Your task to perform on an android device: Open Google Chrome and click the shortcut for Amazon.com Image 0: 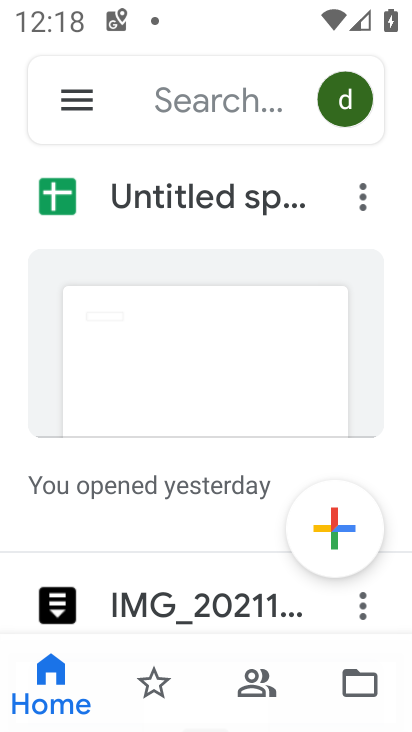
Step 0: press back button
Your task to perform on an android device: Open Google Chrome and click the shortcut for Amazon.com Image 1: 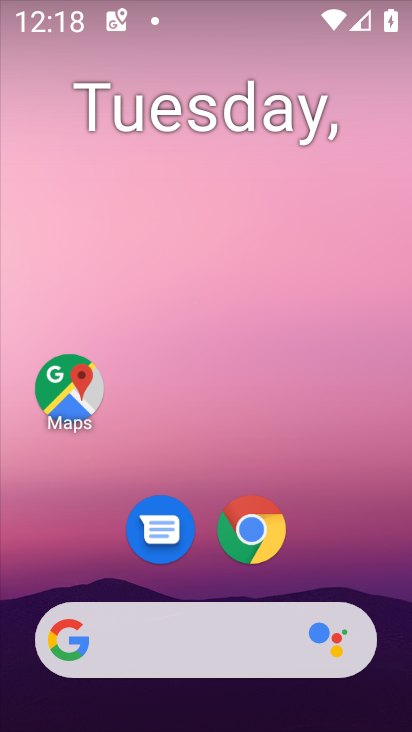
Step 1: click (227, 119)
Your task to perform on an android device: Open Google Chrome and click the shortcut for Amazon.com Image 2: 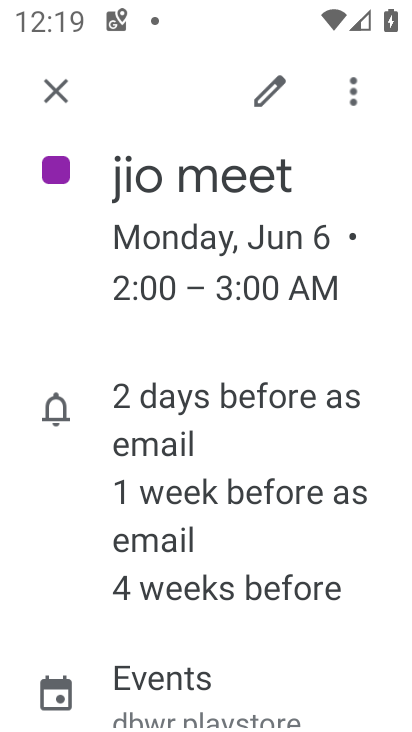
Step 2: press back button
Your task to perform on an android device: Open Google Chrome and click the shortcut for Amazon.com Image 3: 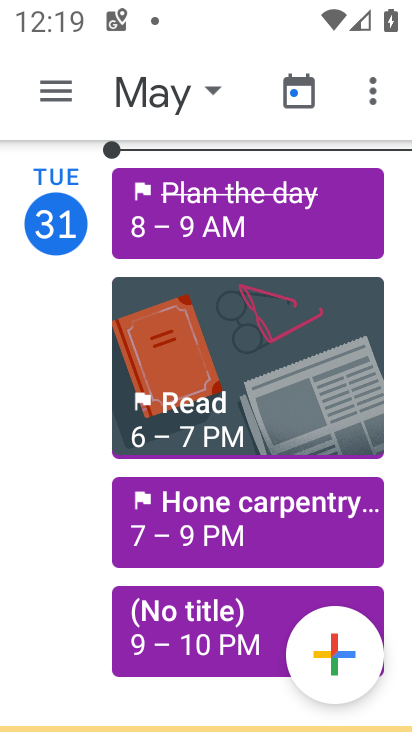
Step 3: press back button
Your task to perform on an android device: Open Google Chrome and click the shortcut for Amazon.com Image 4: 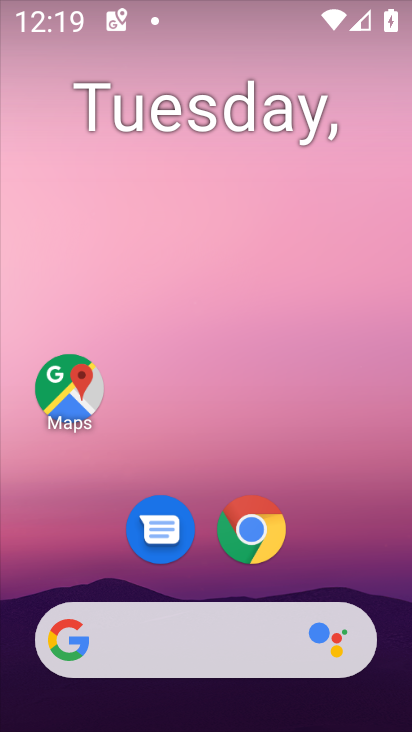
Step 4: click (252, 533)
Your task to perform on an android device: Open Google Chrome and click the shortcut for Amazon.com Image 5: 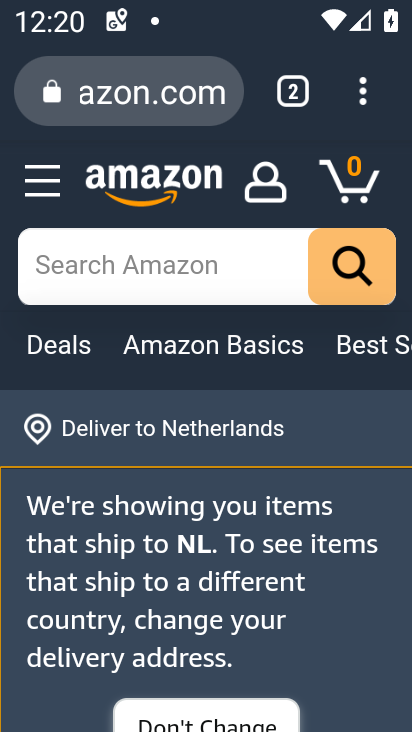
Step 5: task complete